Your task to perform on an android device: Go to CNN.com Image 0: 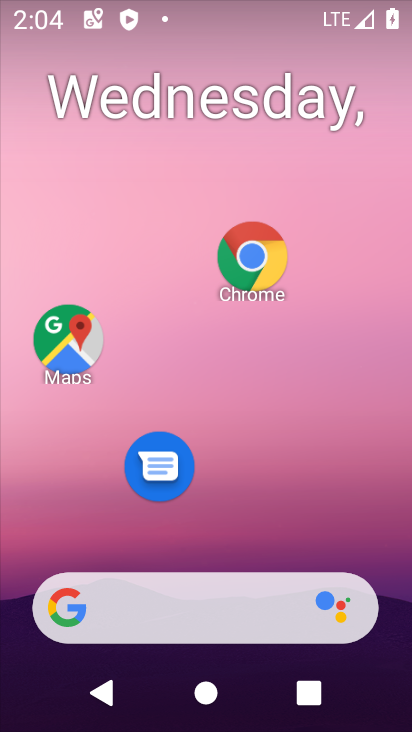
Step 0: drag from (245, 489) to (260, 101)
Your task to perform on an android device: Go to CNN.com Image 1: 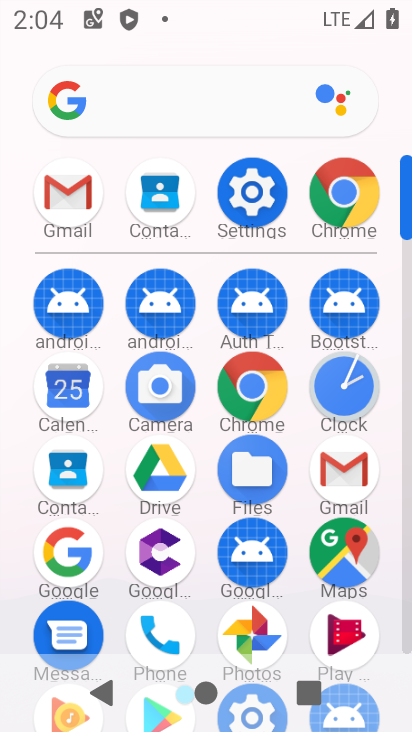
Step 1: click (273, 383)
Your task to perform on an android device: Go to CNN.com Image 2: 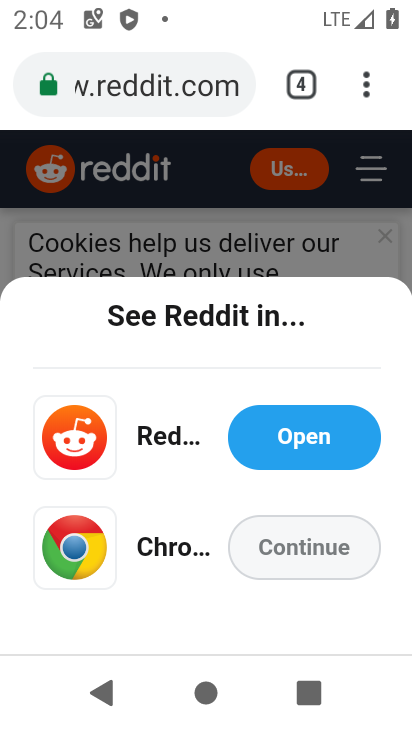
Step 2: click (188, 88)
Your task to perform on an android device: Go to CNN.com Image 3: 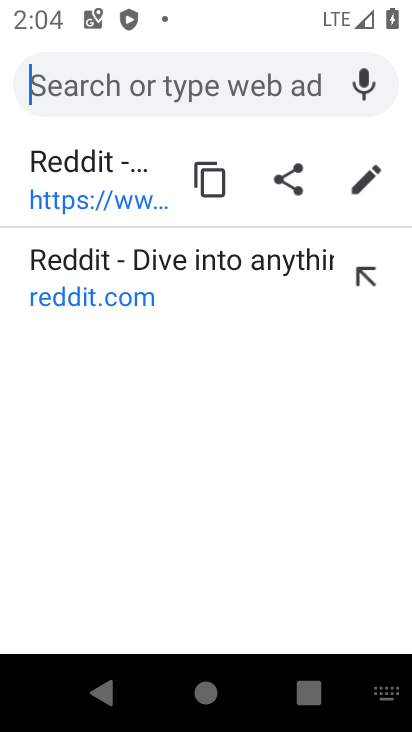
Step 3: type "CNN.com"
Your task to perform on an android device: Go to CNN.com Image 4: 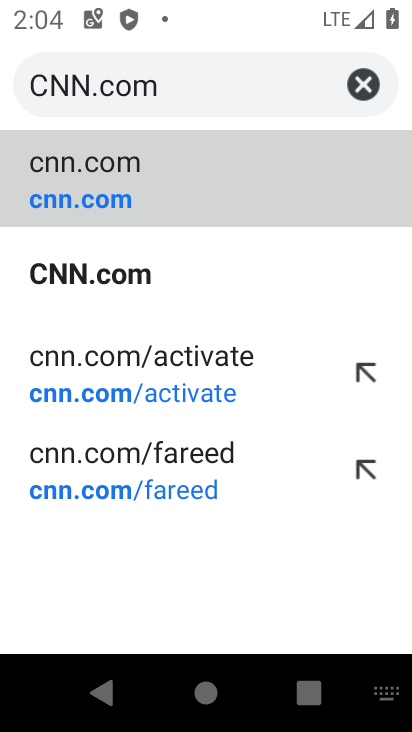
Step 4: click (77, 203)
Your task to perform on an android device: Go to CNN.com Image 5: 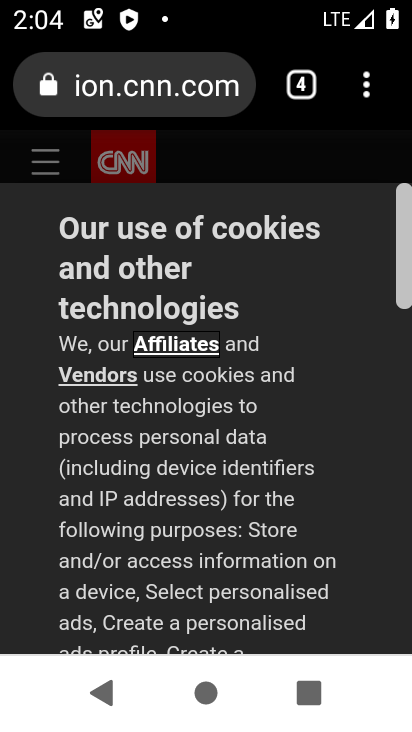
Step 5: task complete